Your task to perform on an android device: Open Yahoo.com Image 0: 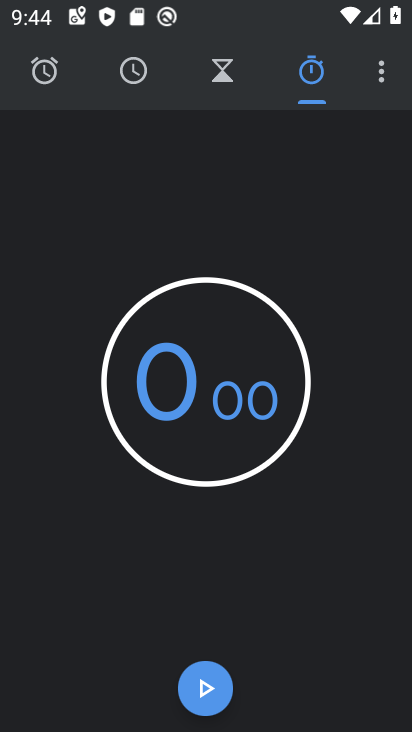
Step 0: press home button
Your task to perform on an android device: Open Yahoo.com Image 1: 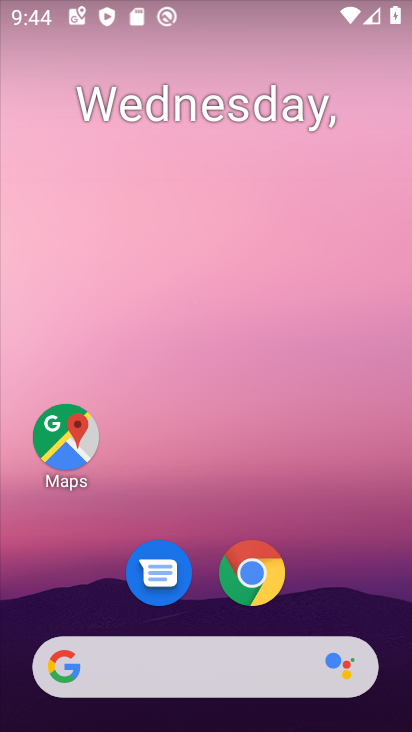
Step 1: click (249, 570)
Your task to perform on an android device: Open Yahoo.com Image 2: 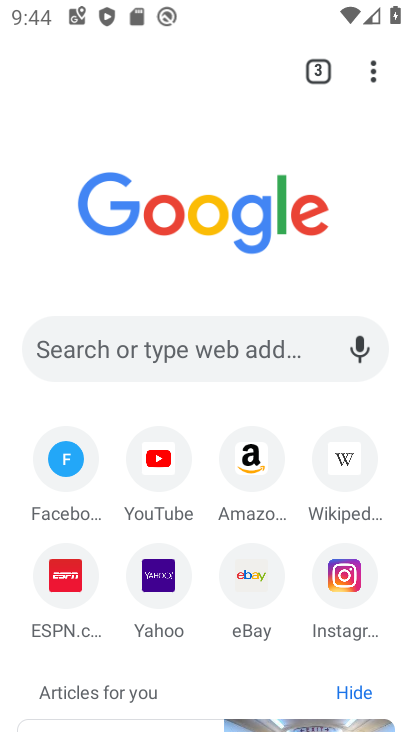
Step 2: click (114, 349)
Your task to perform on an android device: Open Yahoo.com Image 3: 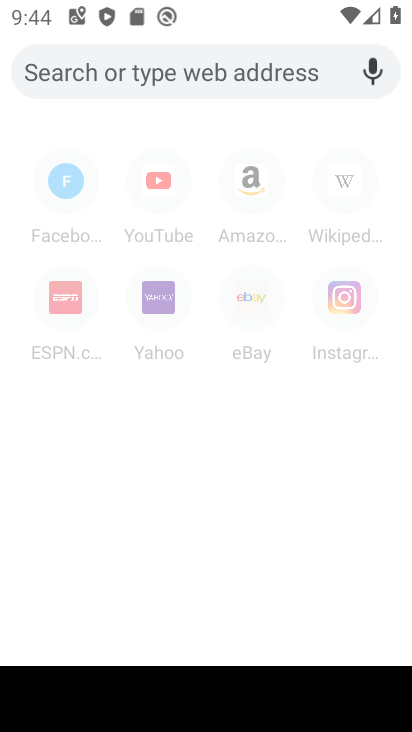
Step 3: type "Yahoo.com"
Your task to perform on an android device: Open Yahoo.com Image 4: 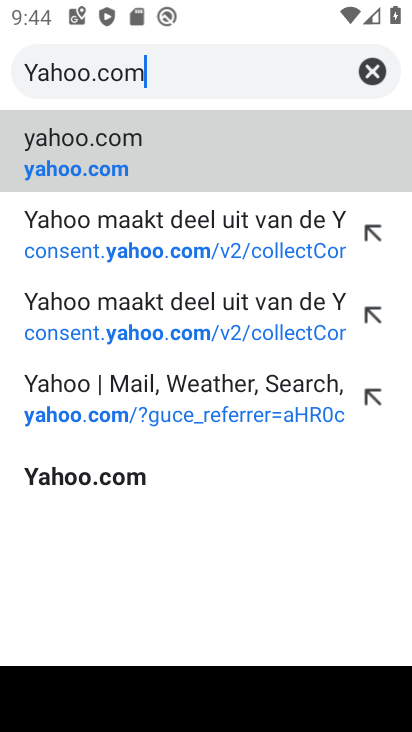
Step 4: click (92, 147)
Your task to perform on an android device: Open Yahoo.com Image 5: 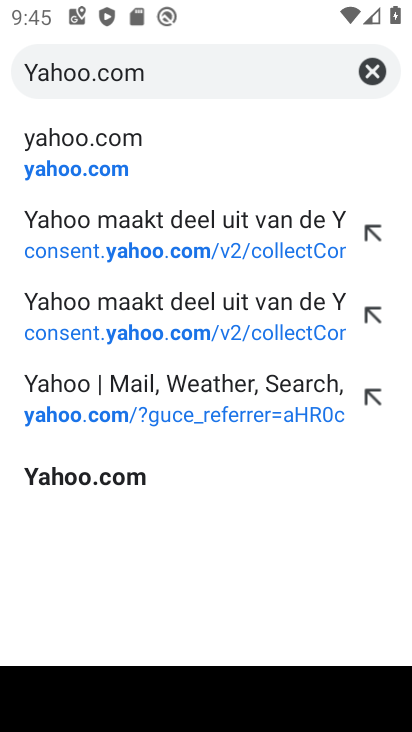
Step 5: click (61, 153)
Your task to perform on an android device: Open Yahoo.com Image 6: 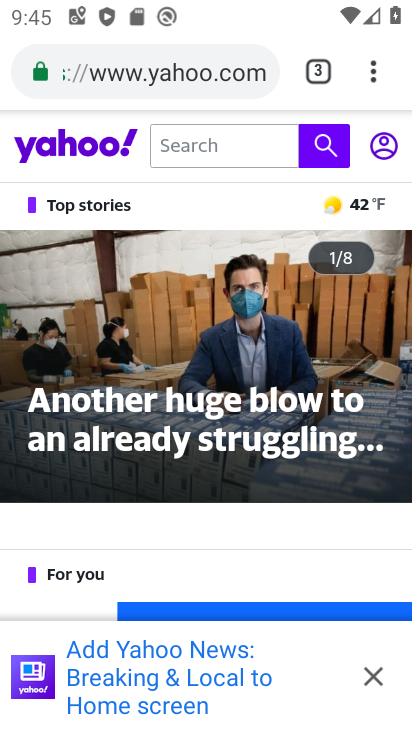
Step 6: task complete